Your task to perform on an android device: turn on bluetooth scan Image 0: 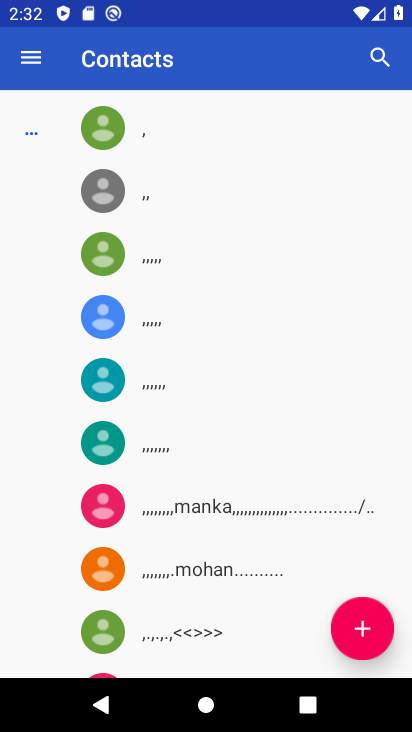
Step 0: press home button
Your task to perform on an android device: turn on bluetooth scan Image 1: 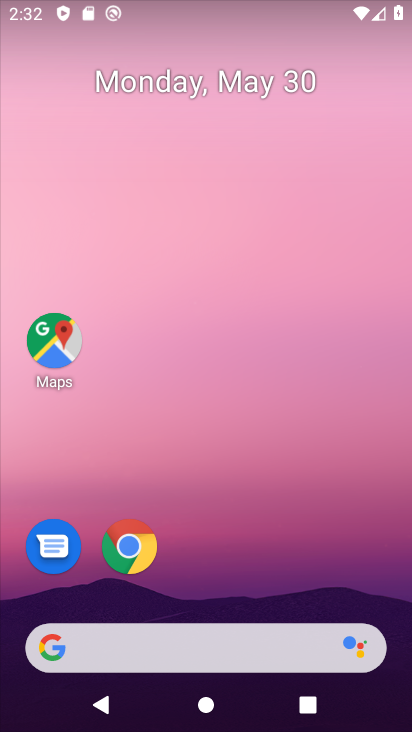
Step 1: drag from (260, 595) to (251, 60)
Your task to perform on an android device: turn on bluetooth scan Image 2: 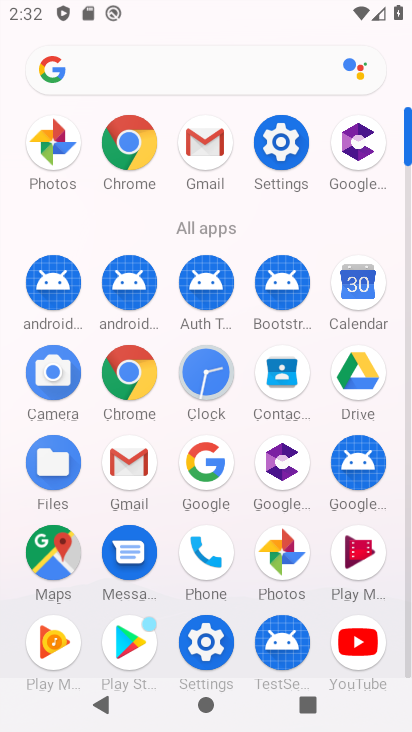
Step 2: click (290, 140)
Your task to perform on an android device: turn on bluetooth scan Image 3: 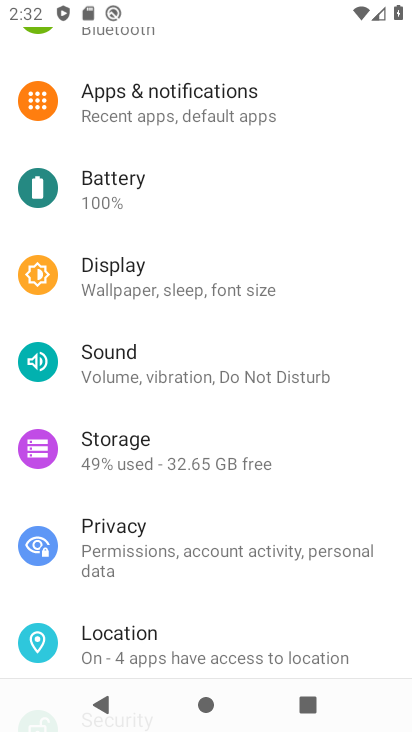
Step 3: click (198, 636)
Your task to perform on an android device: turn on bluetooth scan Image 4: 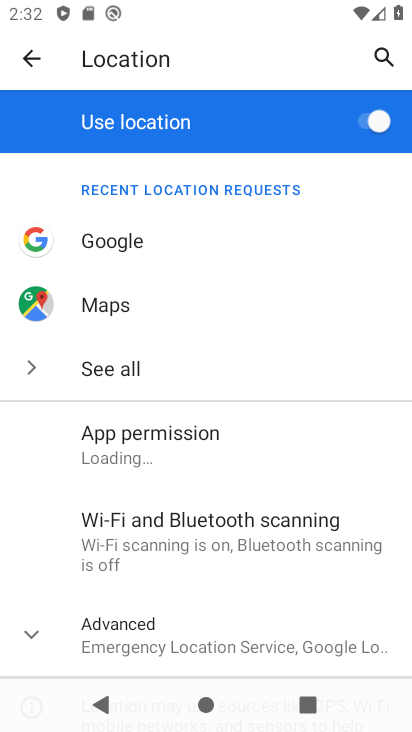
Step 4: click (226, 565)
Your task to perform on an android device: turn on bluetooth scan Image 5: 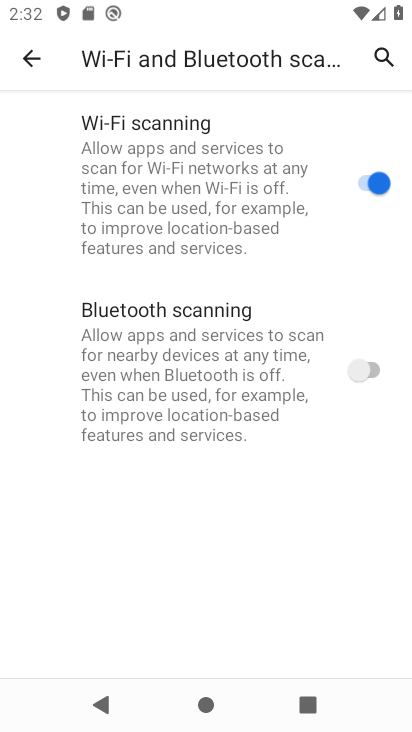
Step 5: click (338, 365)
Your task to perform on an android device: turn on bluetooth scan Image 6: 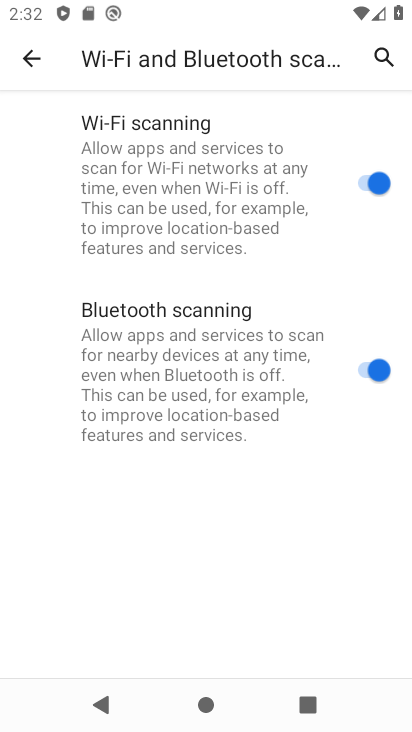
Step 6: task complete